Your task to perform on an android device: Check the news Image 0: 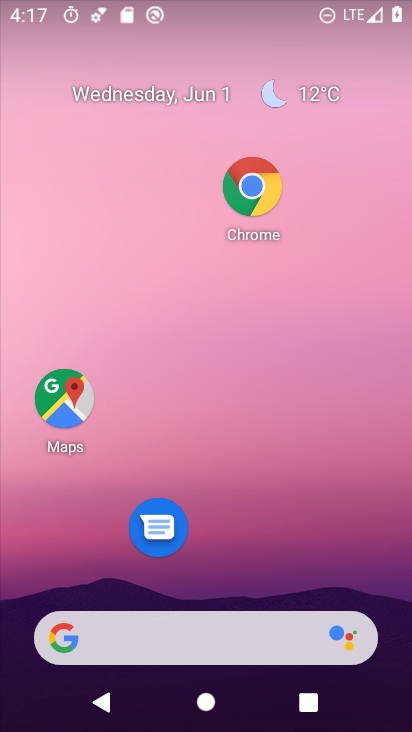
Step 0: drag from (316, 585) to (339, 19)
Your task to perform on an android device: Check the news Image 1: 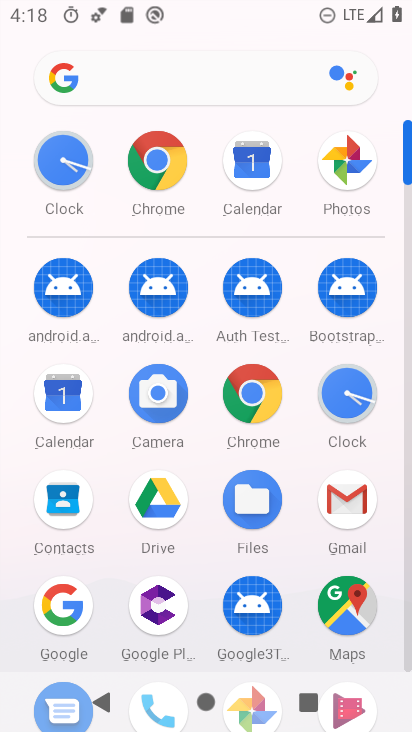
Step 1: drag from (253, 480) to (349, 32)
Your task to perform on an android device: Check the news Image 2: 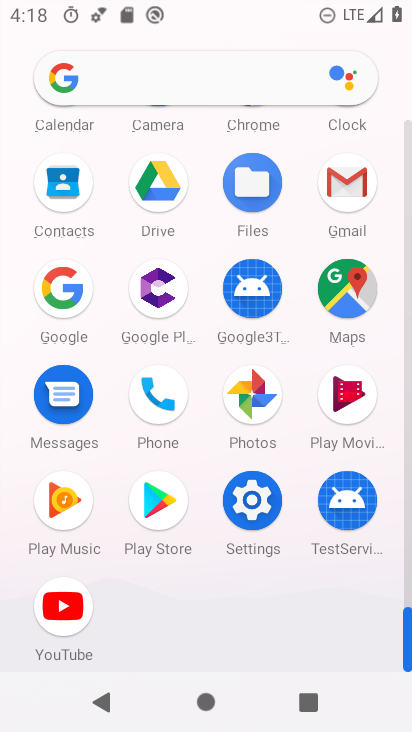
Step 2: click (51, 296)
Your task to perform on an android device: Check the news Image 3: 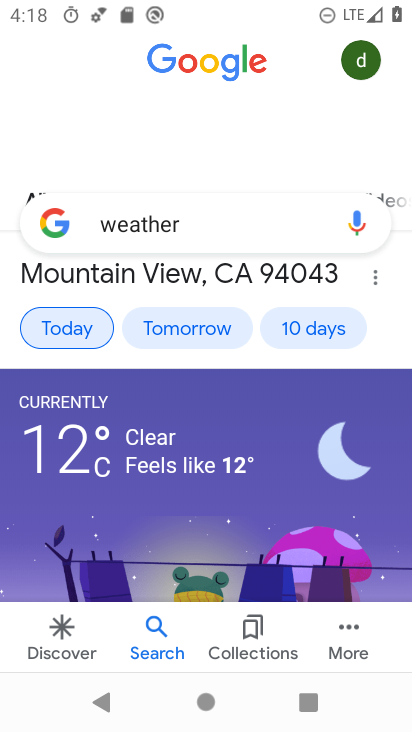
Step 3: click (263, 227)
Your task to perform on an android device: Check the news Image 4: 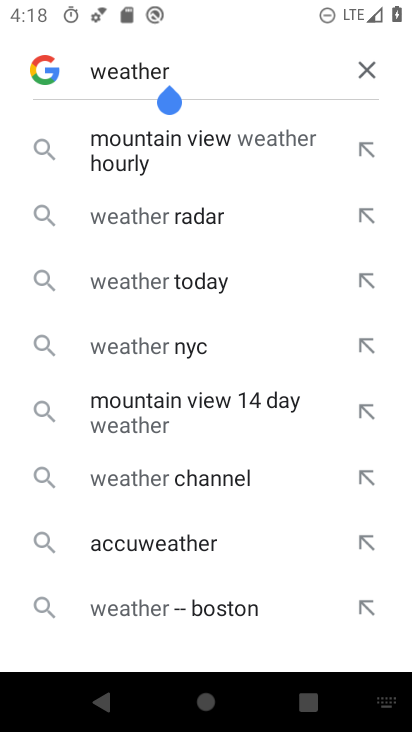
Step 4: click (370, 65)
Your task to perform on an android device: Check the news Image 5: 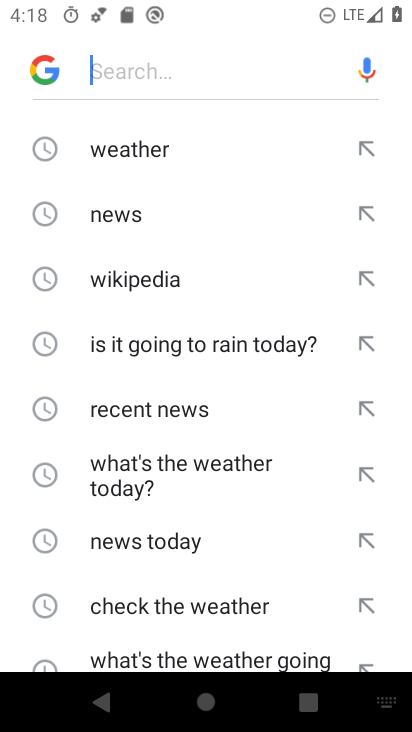
Step 5: click (179, 216)
Your task to perform on an android device: Check the news Image 6: 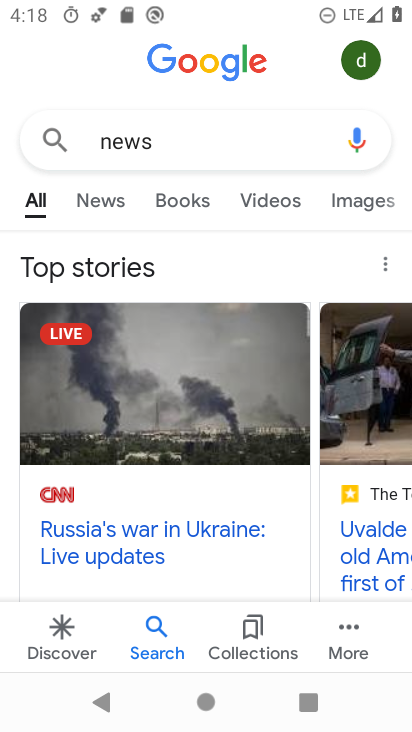
Step 6: click (106, 201)
Your task to perform on an android device: Check the news Image 7: 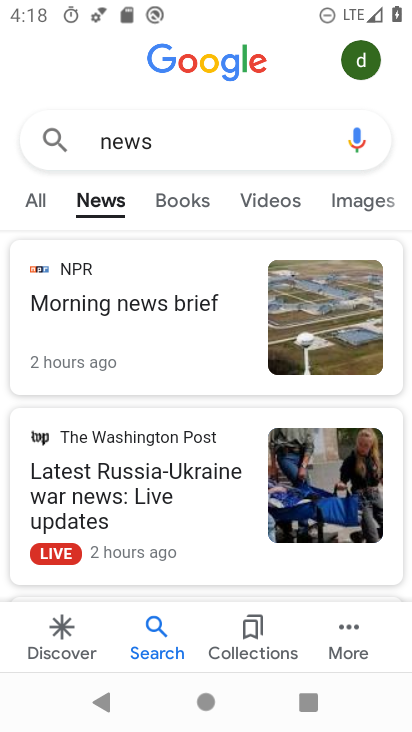
Step 7: task complete